Your task to perform on an android device: remove spam from my inbox in the gmail app Image 0: 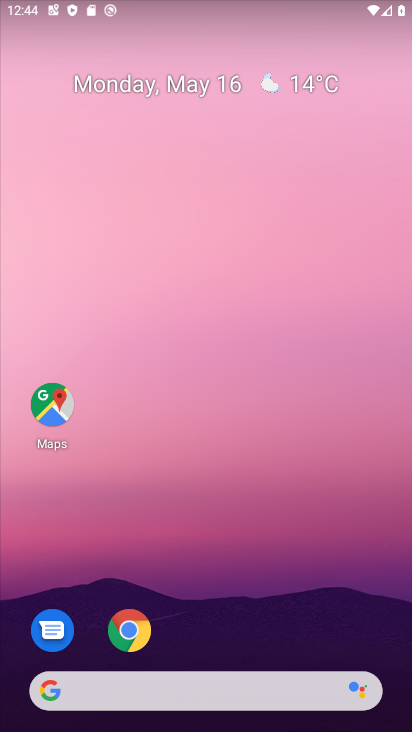
Step 0: drag from (310, 609) to (266, 101)
Your task to perform on an android device: remove spam from my inbox in the gmail app Image 1: 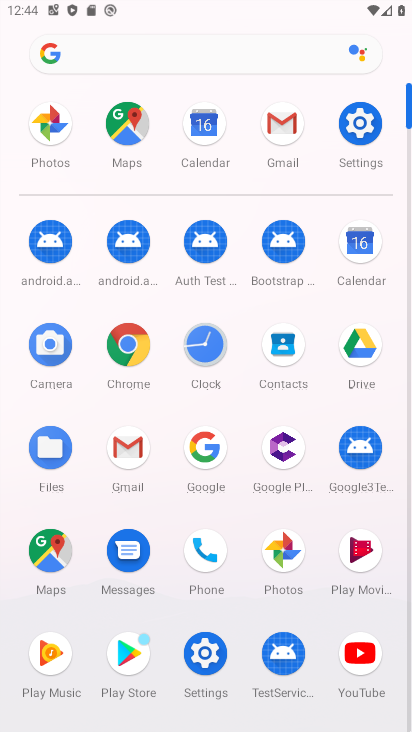
Step 1: click (125, 439)
Your task to perform on an android device: remove spam from my inbox in the gmail app Image 2: 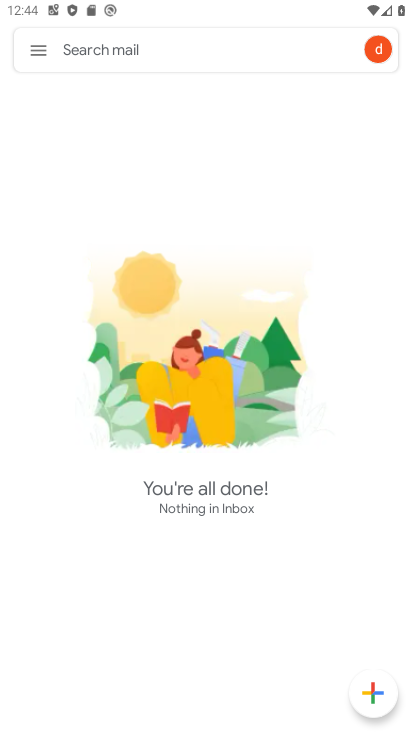
Step 2: click (39, 50)
Your task to perform on an android device: remove spam from my inbox in the gmail app Image 3: 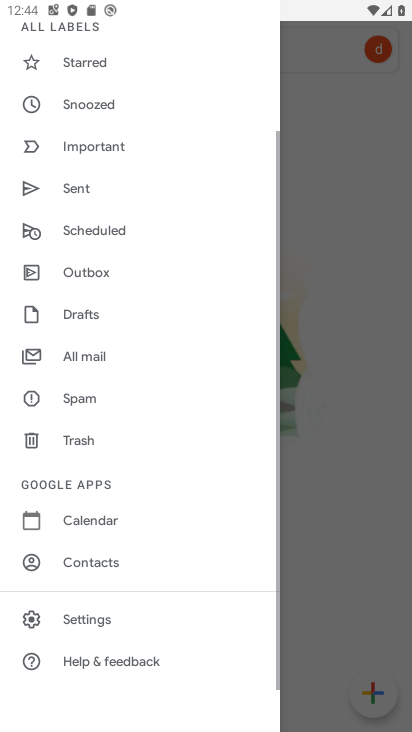
Step 3: click (112, 398)
Your task to perform on an android device: remove spam from my inbox in the gmail app Image 4: 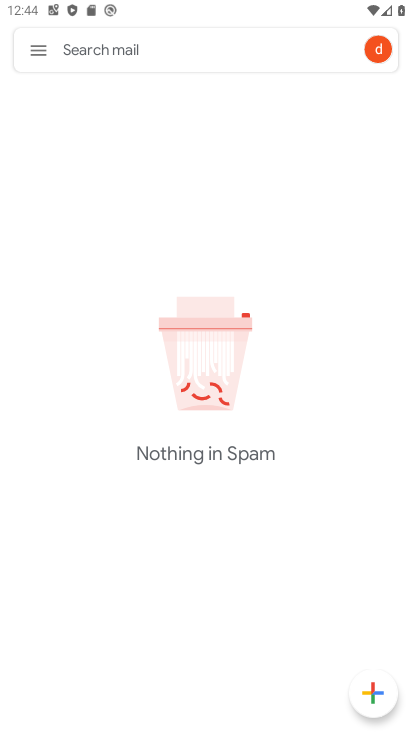
Step 4: task complete